Your task to perform on an android device: Go to Maps Image 0: 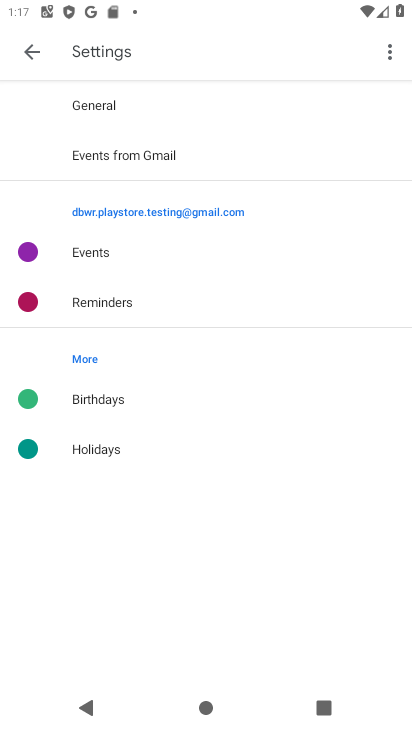
Step 0: press home button
Your task to perform on an android device: Go to Maps Image 1: 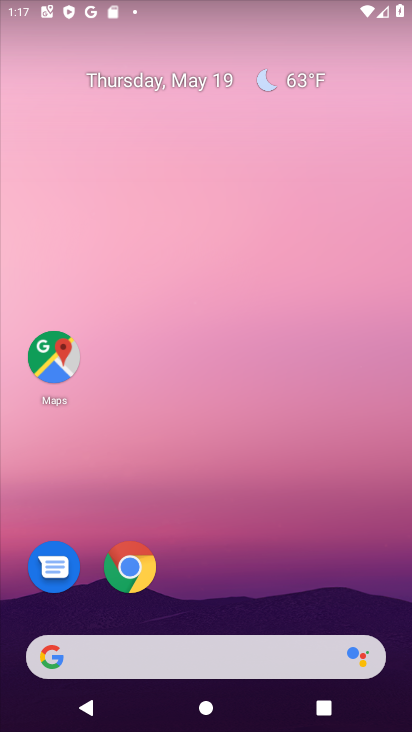
Step 1: click (47, 351)
Your task to perform on an android device: Go to Maps Image 2: 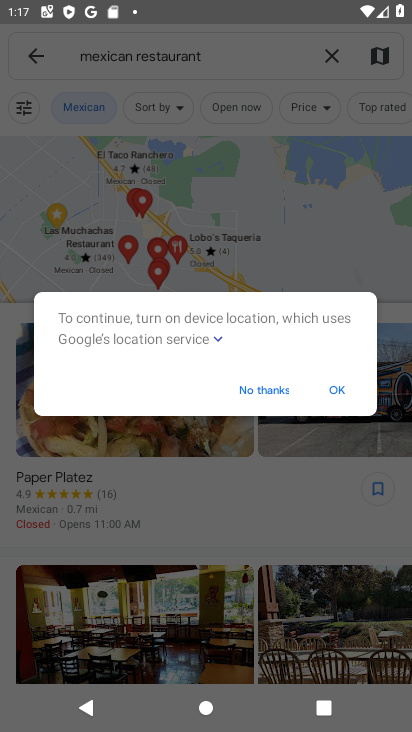
Step 2: task complete